Your task to perform on an android device: What's the weather? Image 0: 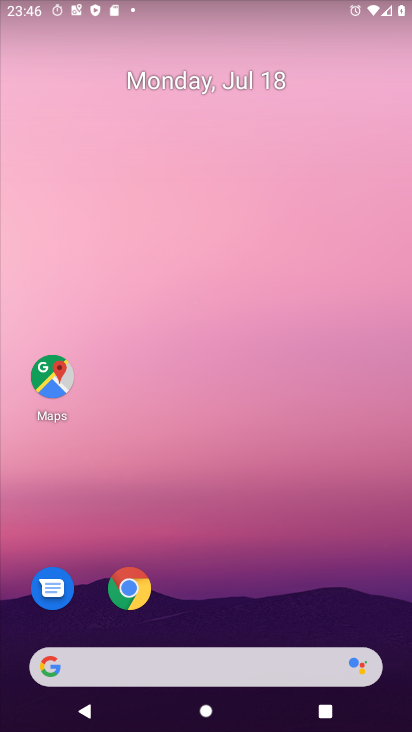
Step 0: press home button
Your task to perform on an android device: What's the weather? Image 1: 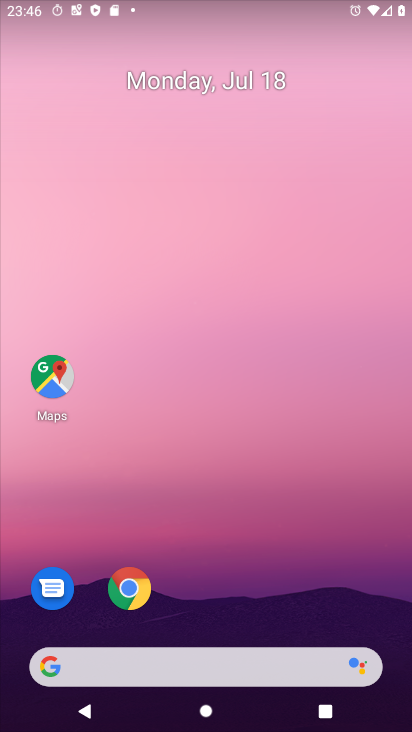
Step 1: click (142, 664)
Your task to perform on an android device: What's the weather? Image 2: 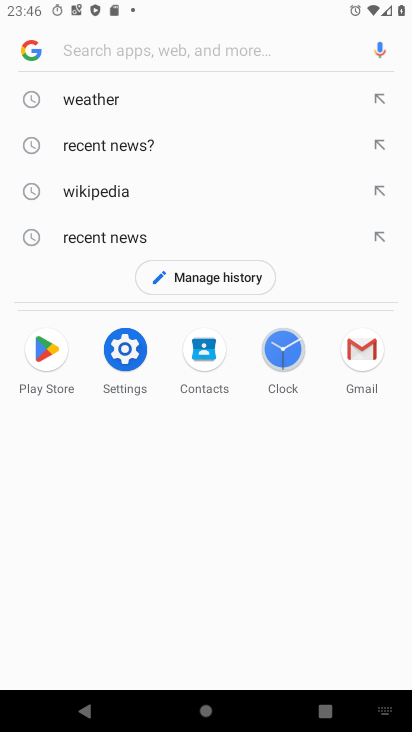
Step 2: click (100, 100)
Your task to perform on an android device: What's the weather? Image 3: 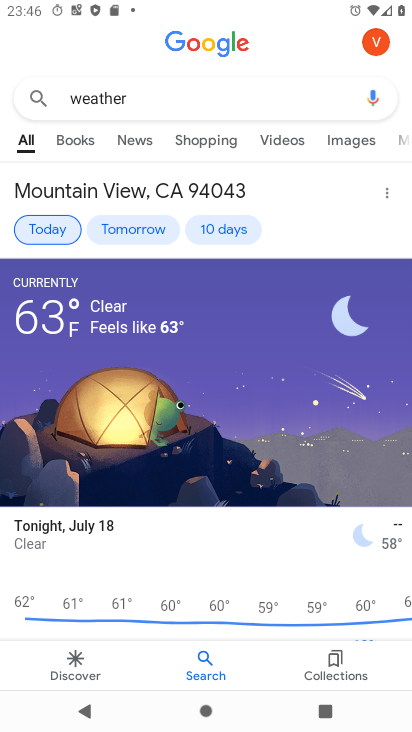
Step 3: task complete